Your task to perform on an android device: toggle javascript in the chrome app Image 0: 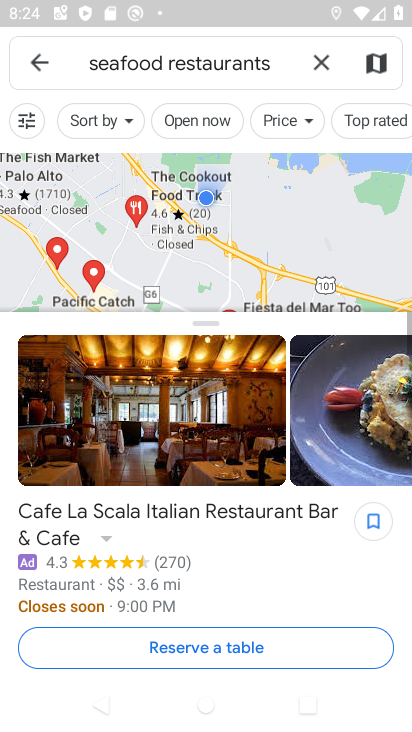
Step 0: press home button
Your task to perform on an android device: toggle javascript in the chrome app Image 1: 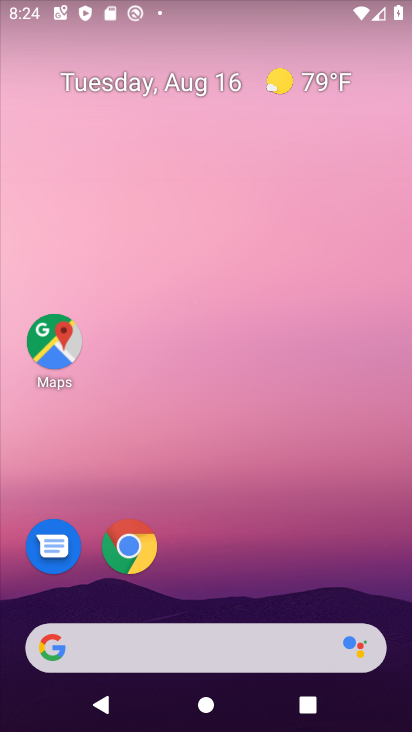
Step 1: click (126, 552)
Your task to perform on an android device: toggle javascript in the chrome app Image 2: 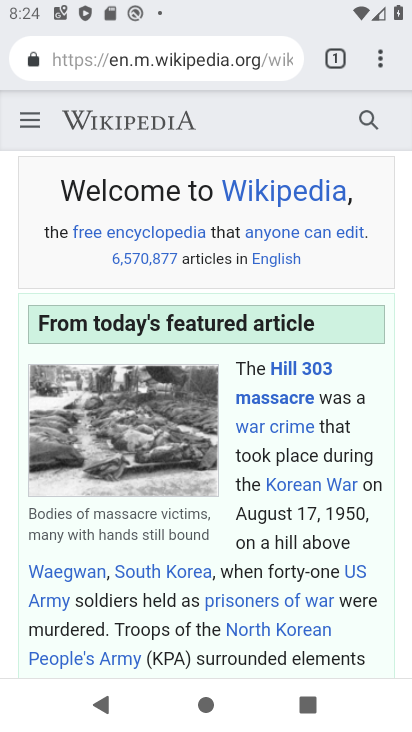
Step 2: click (380, 66)
Your task to perform on an android device: toggle javascript in the chrome app Image 3: 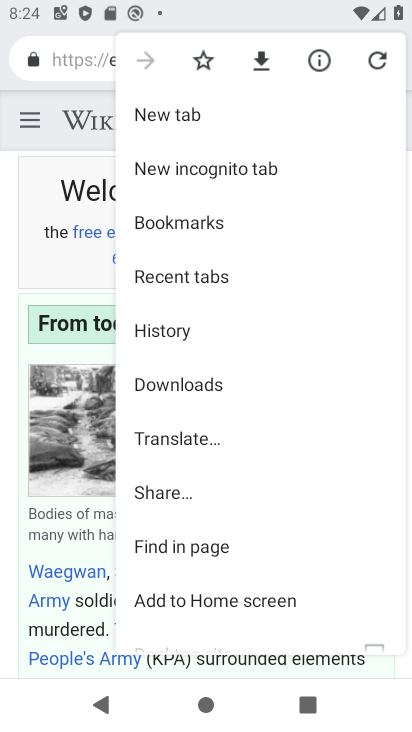
Step 3: drag from (204, 526) to (219, 203)
Your task to perform on an android device: toggle javascript in the chrome app Image 4: 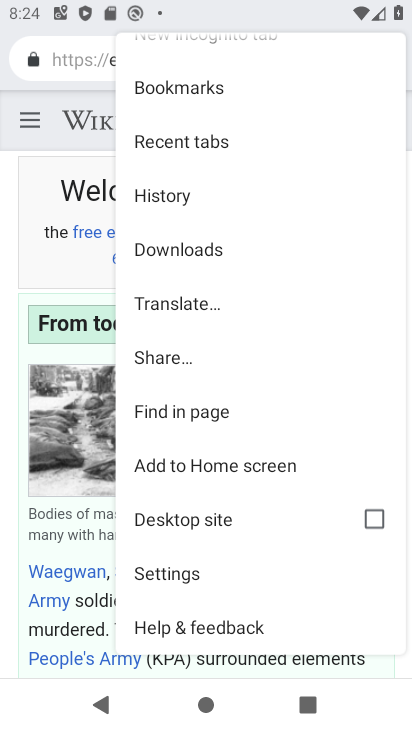
Step 4: click (163, 569)
Your task to perform on an android device: toggle javascript in the chrome app Image 5: 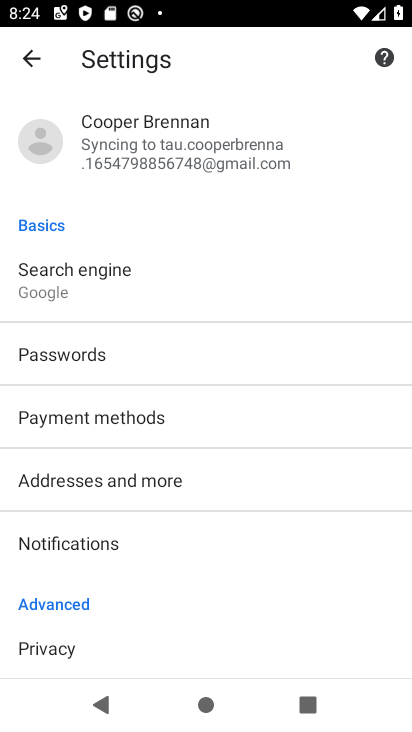
Step 5: drag from (155, 612) to (163, 329)
Your task to perform on an android device: toggle javascript in the chrome app Image 6: 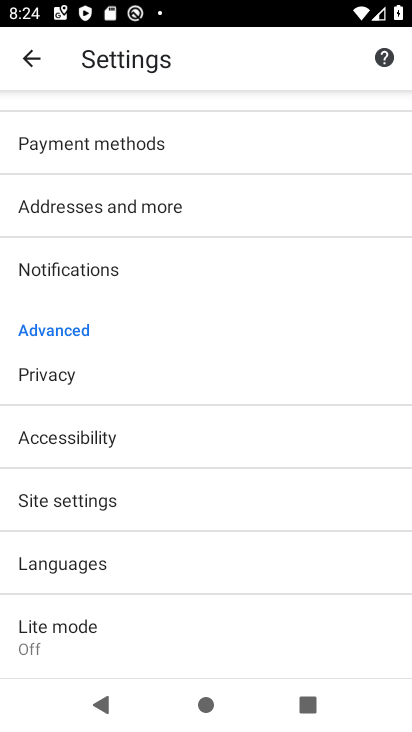
Step 6: click (65, 502)
Your task to perform on an android device: toggle javascript in the chrome app Image 7: 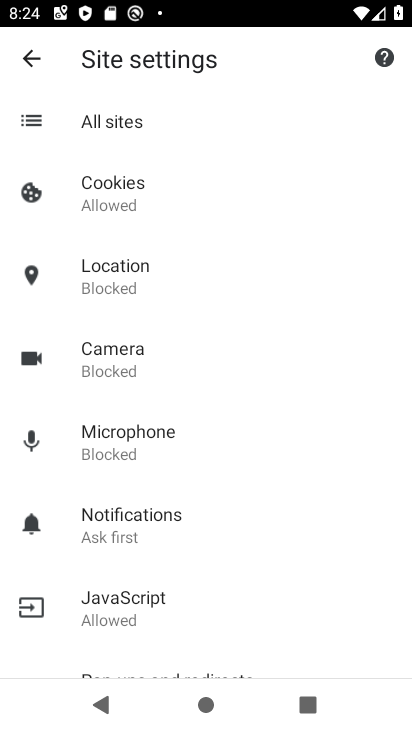
Step 7: drag from (192, 599) to (223, 247)
Your task to perform on an android device: toggle javascript in the chrome app Image 8: 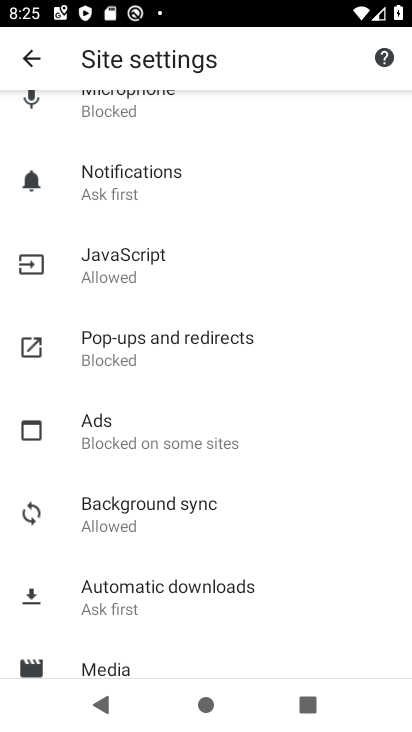
Step 8: click (124, 268)
Your task to perform on an android device: toggle javascript in the chrome app Image 9: 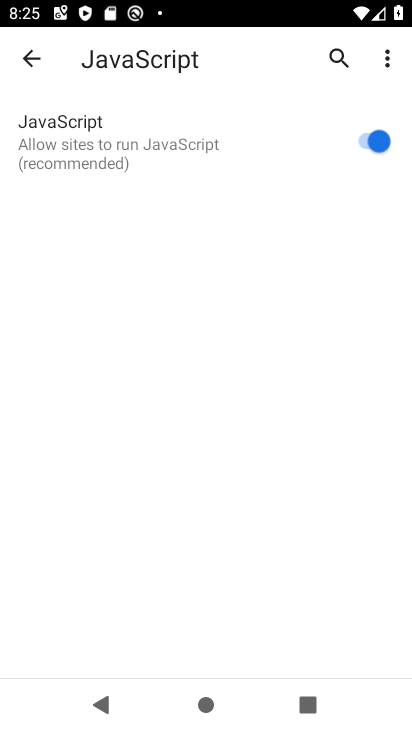
Step 9: task complete